Your task to perform on an android device: turn off airplane mode Image 0: 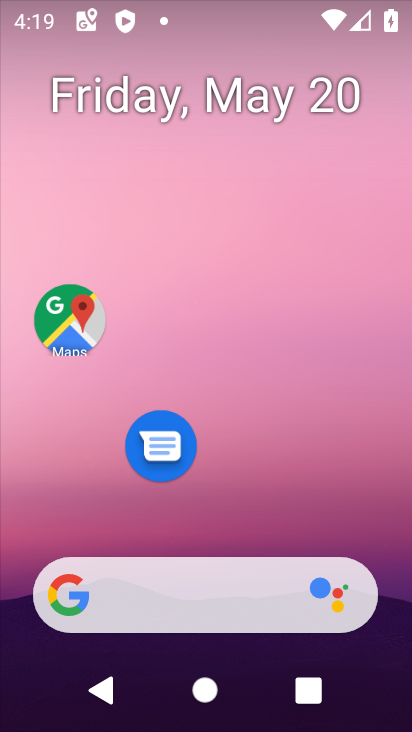
Step 0: drag from (218, 523) to (186, 1)
Your task to perform on an android device: turn off airplane mode Image 1: 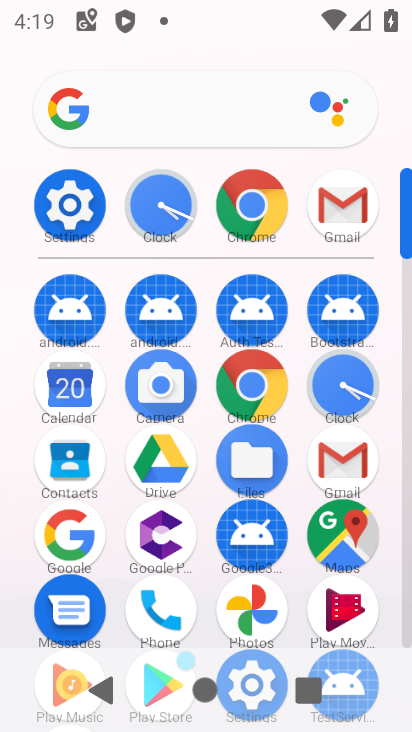
Step 1: click (72, 221)
Your task to perform on an android device: turn off airplane mode Image 2: 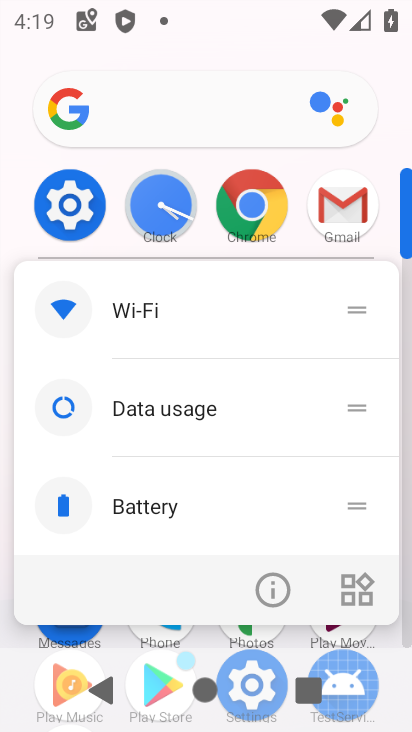
Step 2: click (79, 186)
Your task to perform on an android device: turn off airplane mode Image 3: 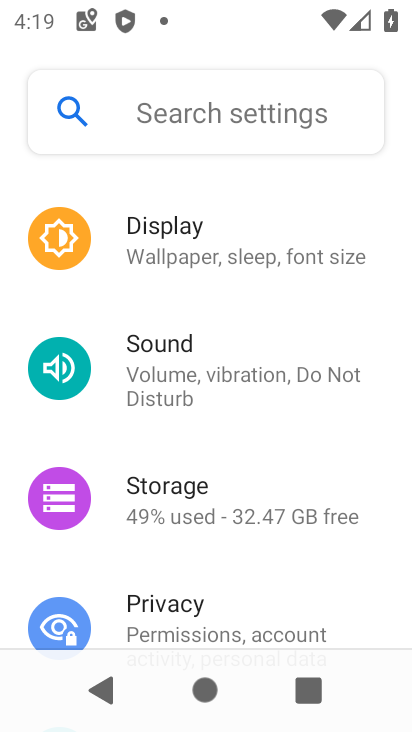
Step 3: drag from (231, 365) to (214, 579)
Your task to perform on an android device: turn off airplane mode Image 4: 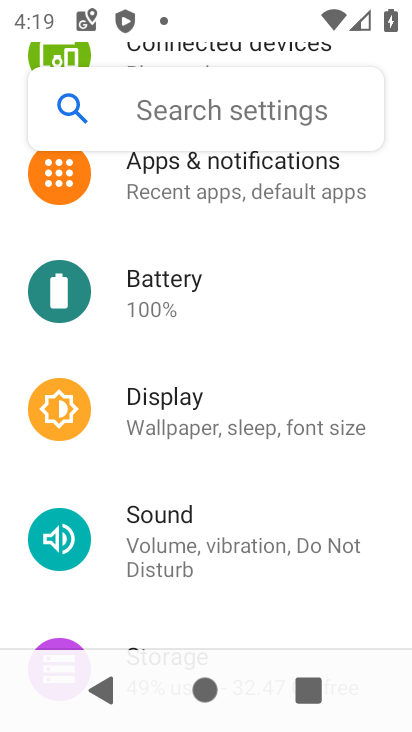
Step 4: drag from (236, 281) to (172, 730)
Your task to perform on an android device: turn off airplane mode Image 5: 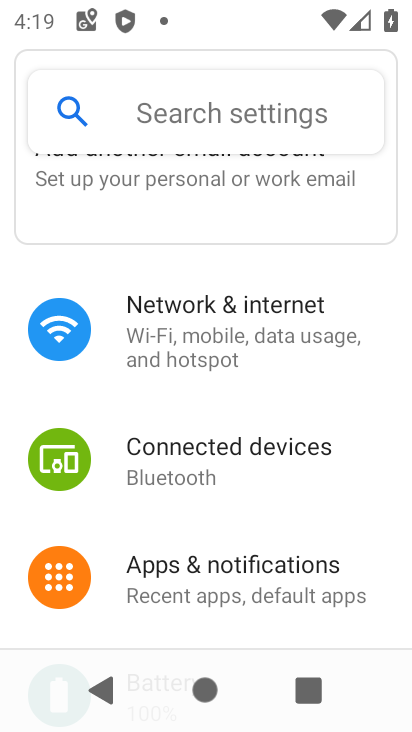
Step 5: click (206, 344)
Your task to perform on an android device: turn off airplane mode Image 6: 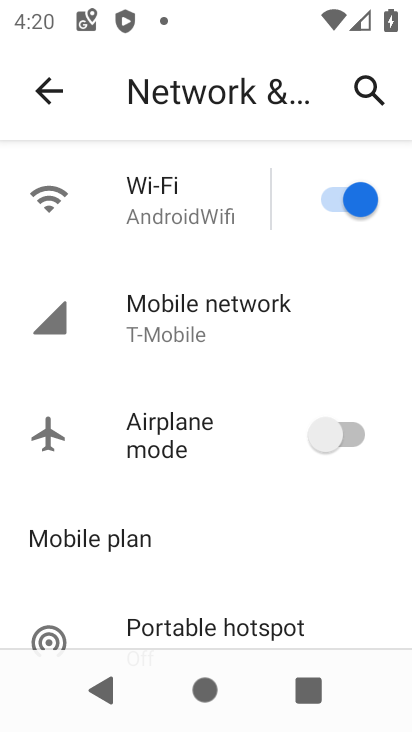
Step 6: task complete